Your task to perform on an android device: Search for Italian restaurants on Maps Image 0: 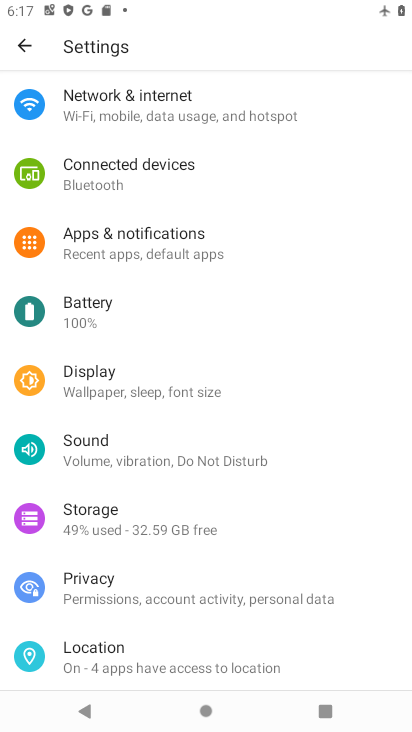
Step 0: click (34, 396)
Your task to perform on an android device: Search for Italian restaurants on Maps Image 1: 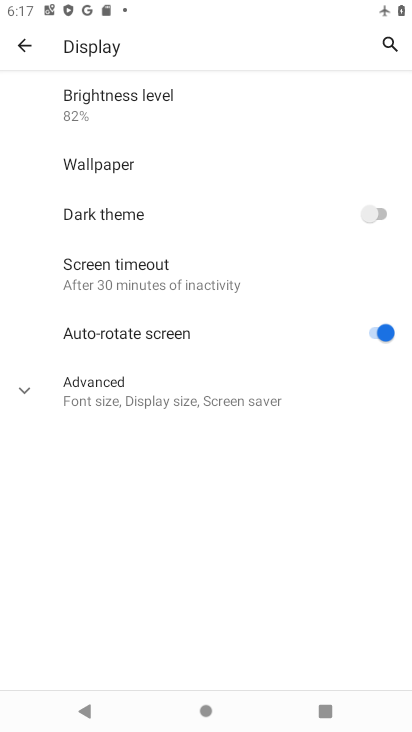
Step 1: press home button
Your task to perform on an android device: Search for Italian restaurants on Maps Image 2: 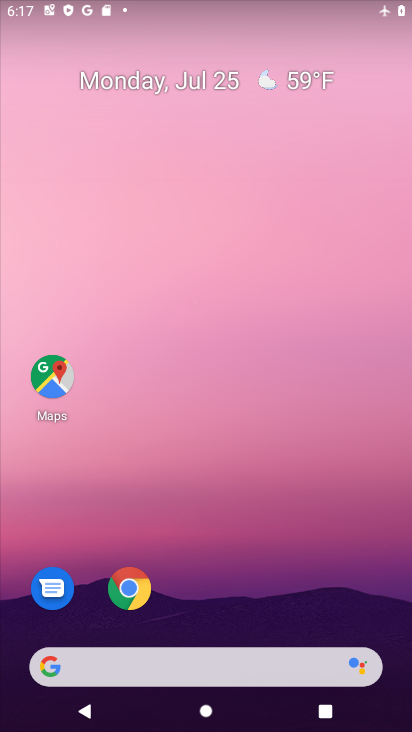
Step 2: click (54, 362)
Your task to perform on an android device: Search for Italian restaurants on Maps Image 3: 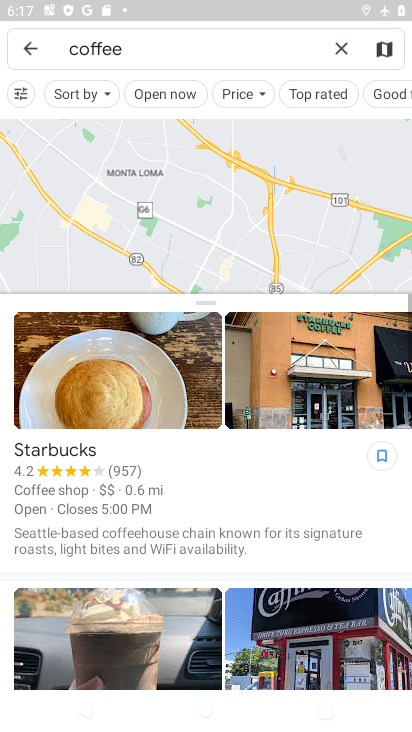
Step 3: click (335, 45)
Your task to perform on an android device: Search for Italian restaurants on Maps Image 4: 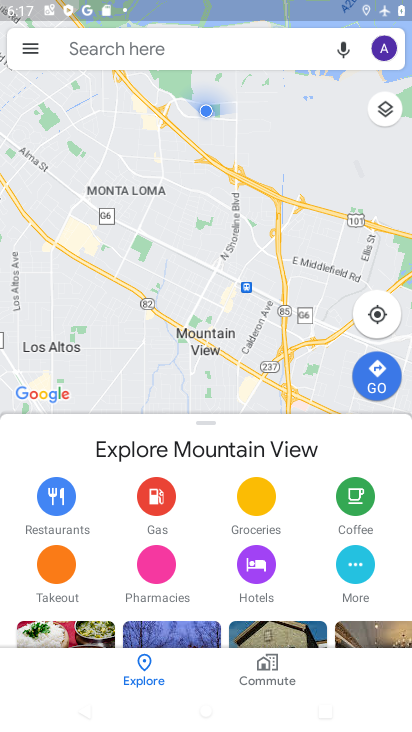
Step 4: type " Italian restaurants "
Your task to perform on an android device: Search for Italian restaurants on Maps Image 5: 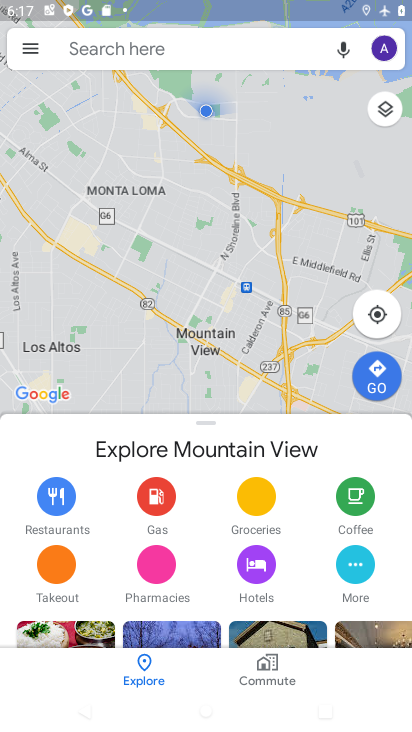
Step 5: press enter
Your task to perform on an android device: Search for Italian restaurants on Maps Image 6: 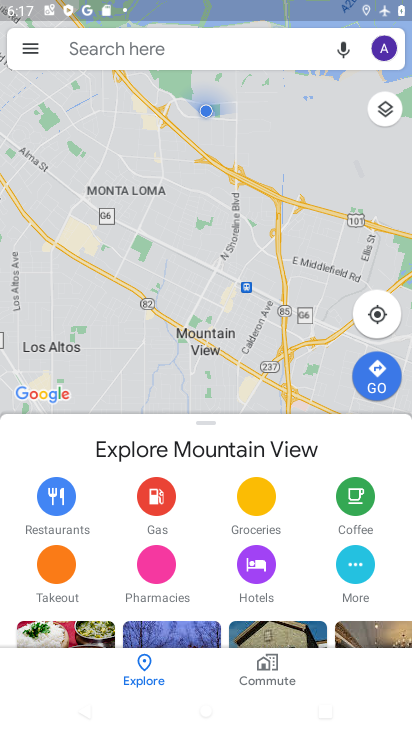
Step 6: click (188, 45)
Your task to perform on an android device: Search for Italian restaurants on Maps Image 7: 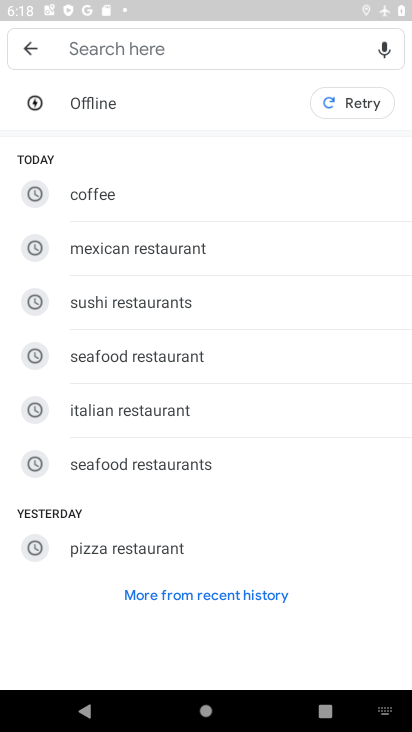
Step 7: type " Italian restaurants "
Your task to perform on an android device: Search for Italian restaurants on Maps Image 8: 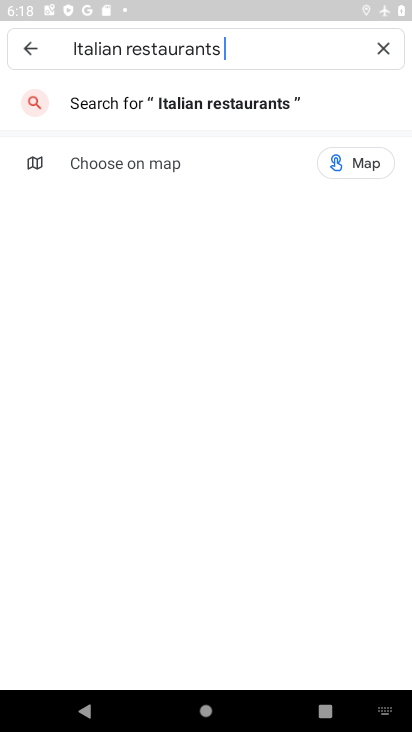
Step 8: task complete